Your task to perform on an android device: Go to settings Image 0: 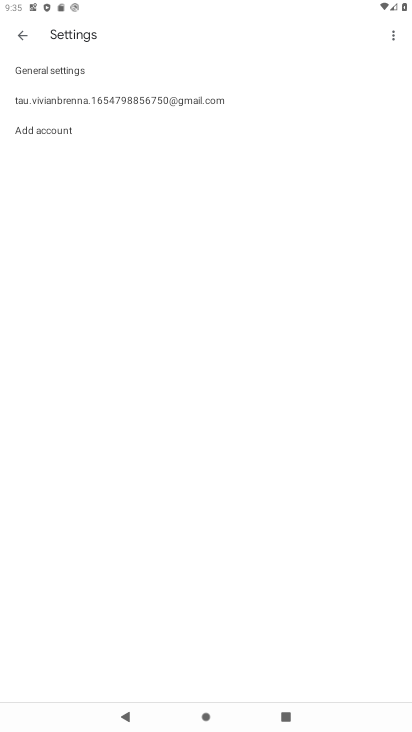
Step 0: press home button
Your task to perform on an android device: Go to settings Image 1: 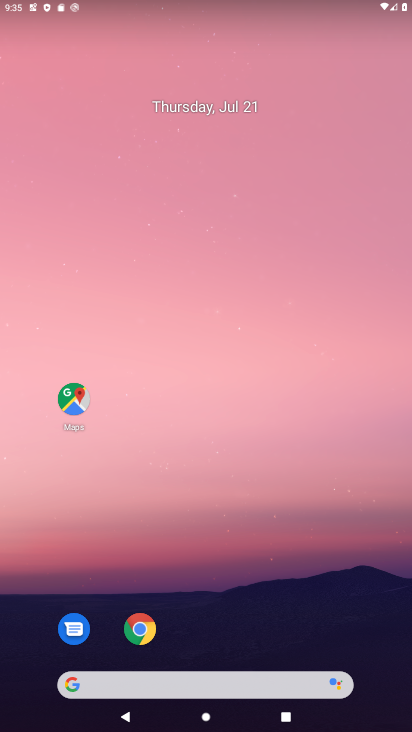
Step 1: drag from (251, 629) to (301, 44)
Your task to perform on an android device: Go to settings Image 2: 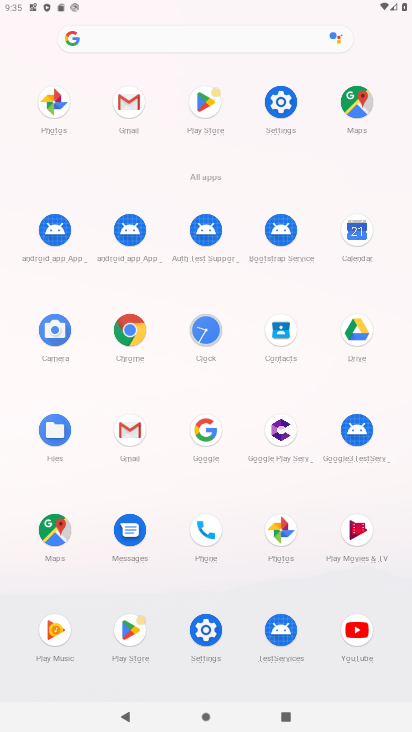
Step 2: click (286, 97)
Your task to perform on an android device: Go to settings Image 3: 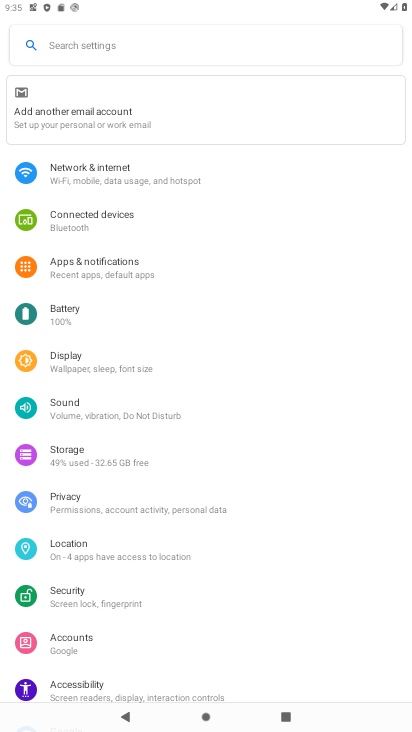
Step 3: task complete